Your task to perform on an android device: turn off notifications settings in the gmail app Image 0: 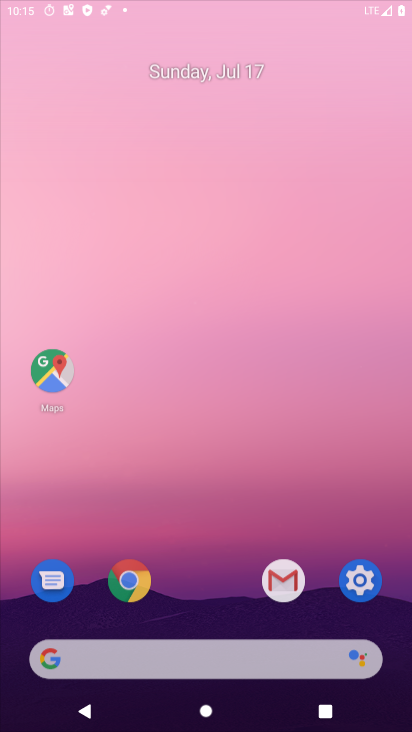
Step 0: press home button
Your task to perform on an android device: turn off notifications settings in the gmail app Image 1: 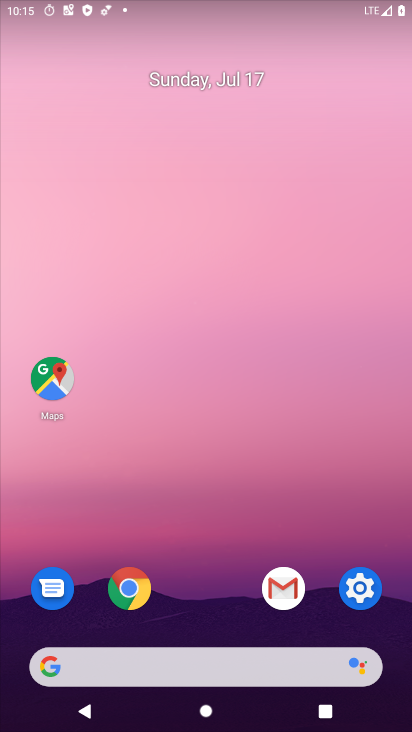
Step 1: click (378, 587)
Your task to perform on an android device: turn off notifications settings in the gmail app Image 2: 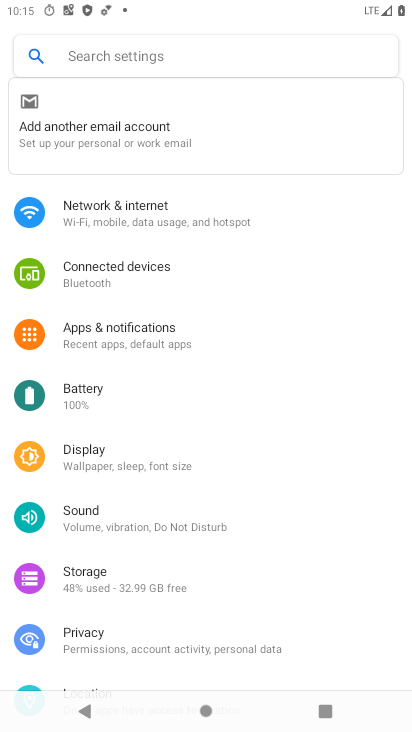
Step 2: press home button
Your task to perform on an android device: turn off notifications settings in the gmail app Image 3: 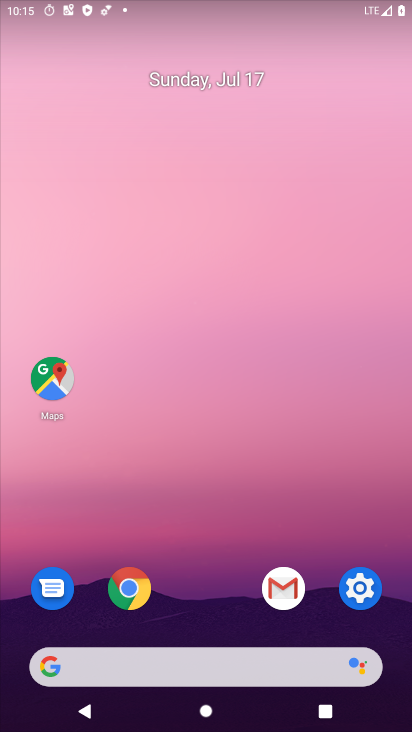
Step 3: click (296, 572)
Your task to perform on an android device: turn off notifications settings in the gmail app Image 4: 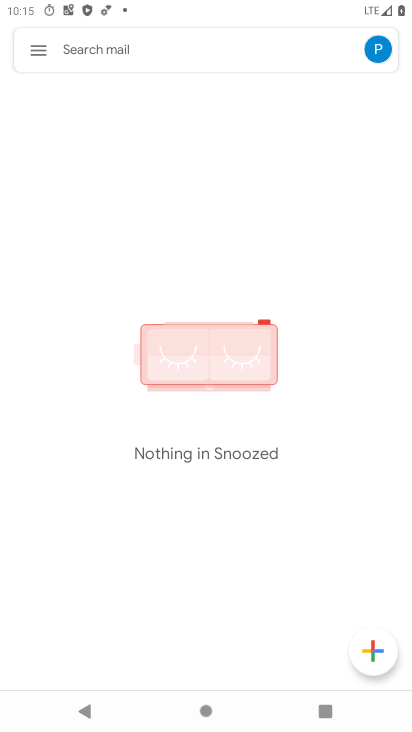
Step 4: click (40, 50)
Your task to perform on an android device: turn off notifications settings in the gmail app Image 5: 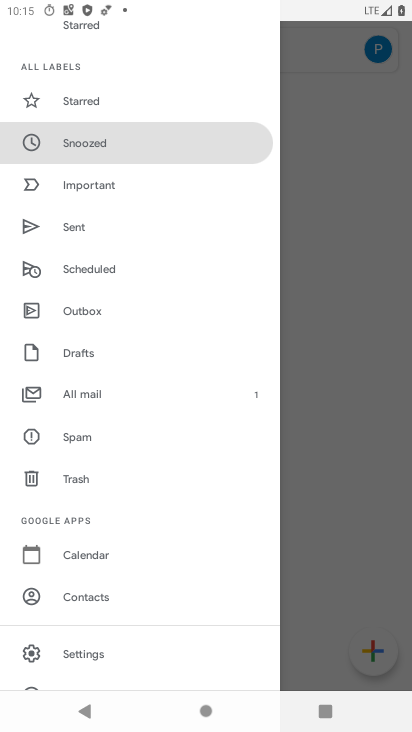
Step 5: click (80, 645)
Your task to perform on an android device: turn off notifications settings in the gmail app Image 6: 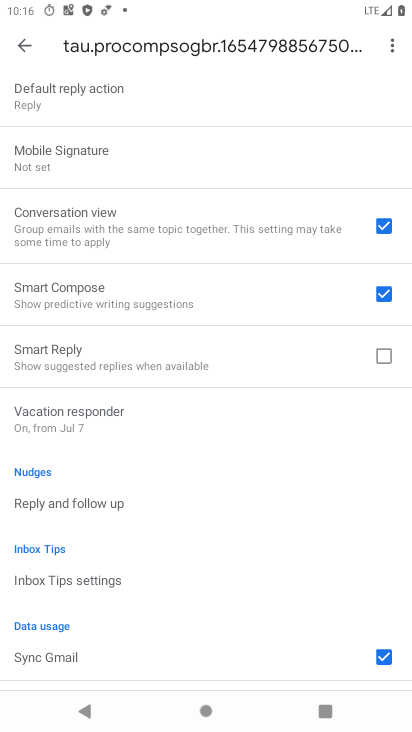
Step 6: drag from (111, 128) to (235, 634)
Your task to perform on an android device: turn off notifications settings in the gmail app Image 7: 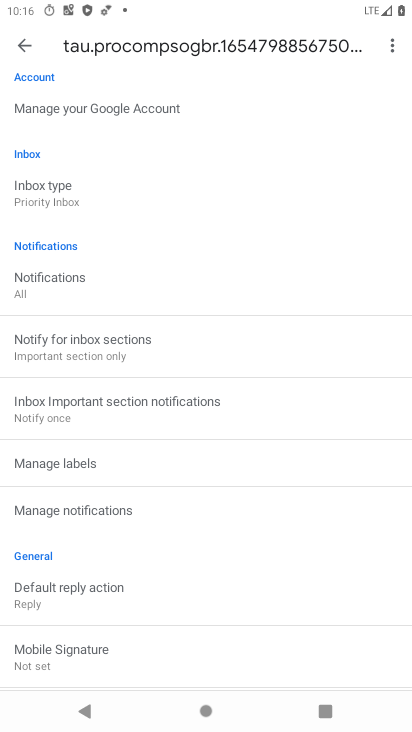
Step 7: click (87, 285)
Your task to perform on an android device: turn off notifications settings in the gmail app Image 8: 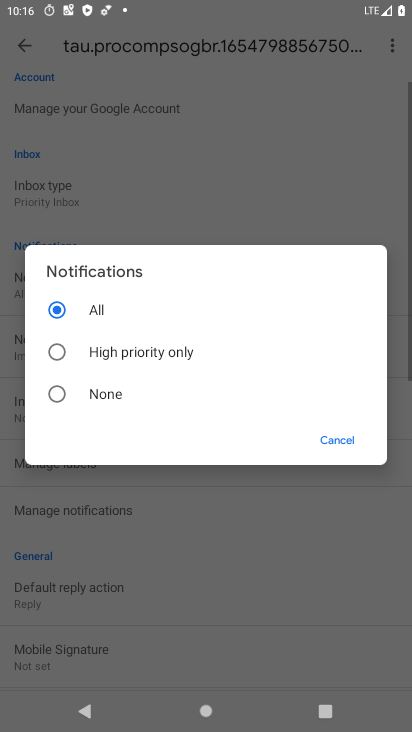
Step 8: click (115, 389)
Your task to perform on an android device: turn off notifications settings in the gmail app Image 9: 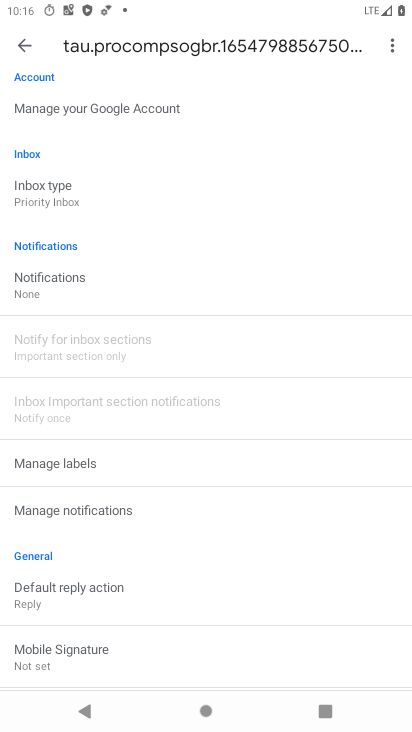
Step 9: task complete